Your task to perform on an android device: turn on airplane mode Image 0: 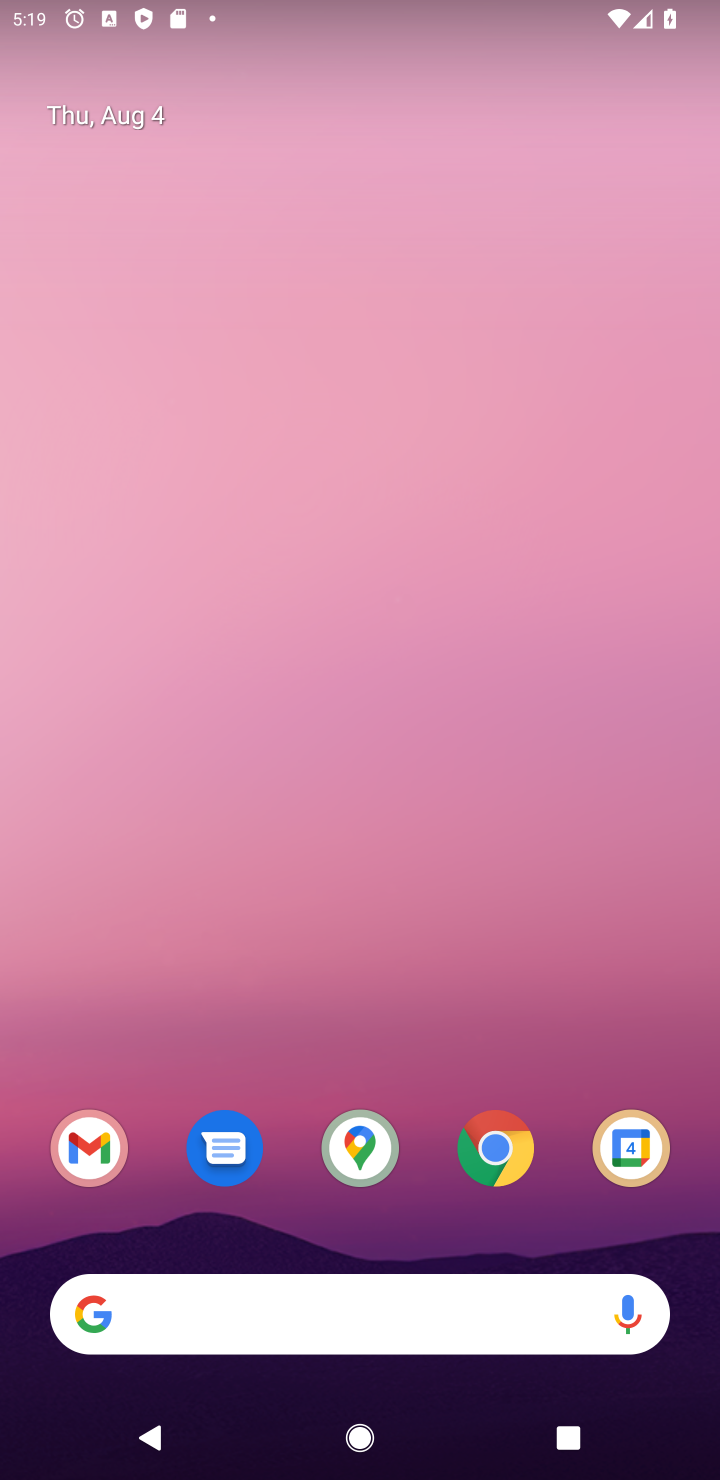
Step 0: drag from (437, 1206) to (415, 171)
Your task to perform on an android device: turn on airplane mode Image 1: 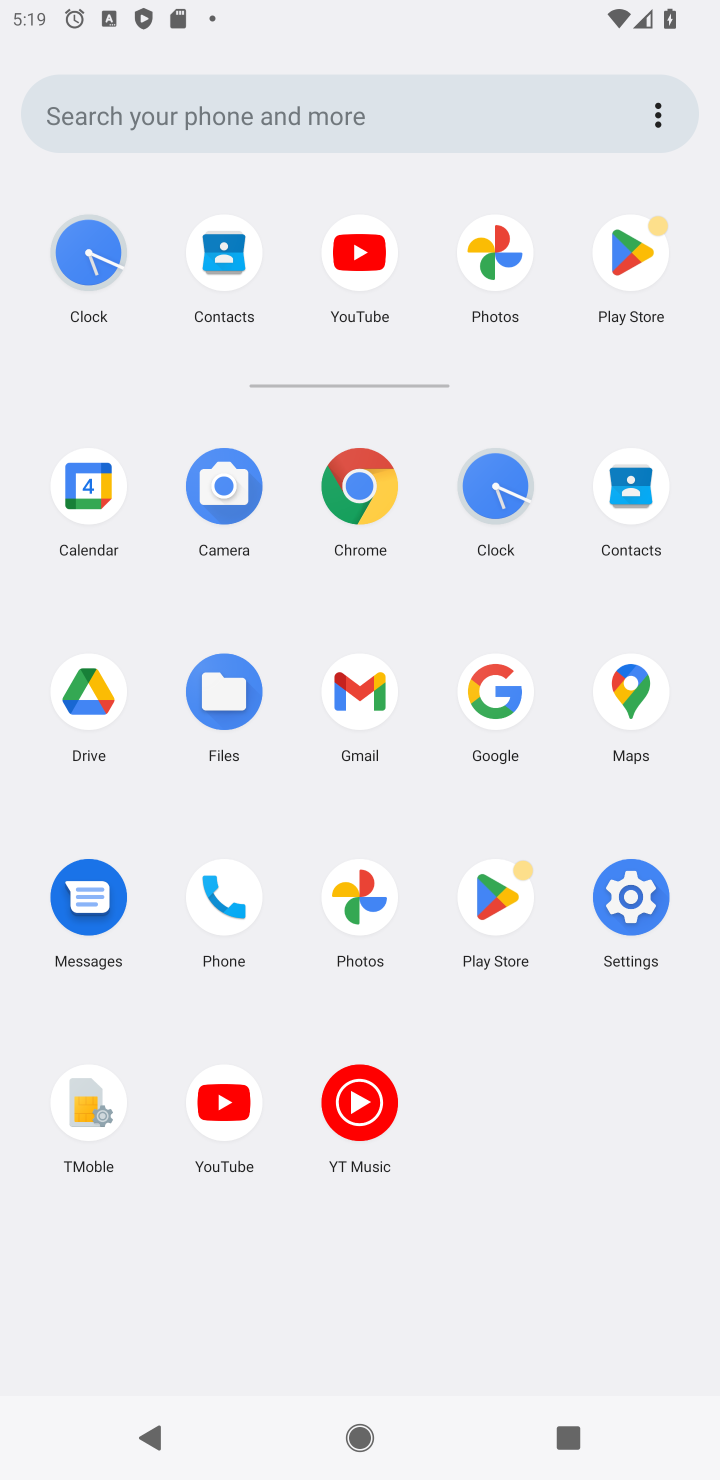
Step 1: click (631, 896)
Your task to perform on an android device: turn on airplane mode Image 2: 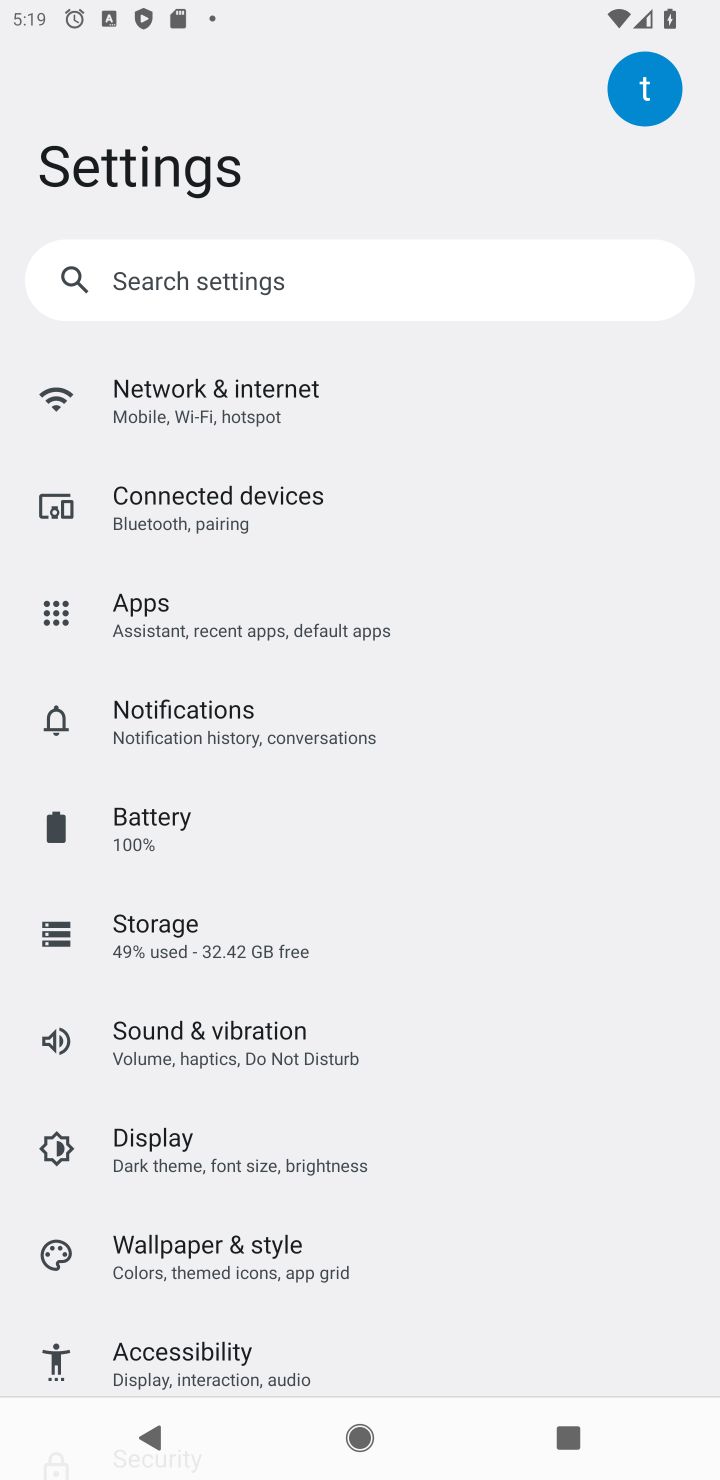
Step 2: click (207, 384)
Your task to perform on an android device: turn on airplane mode Image 3: 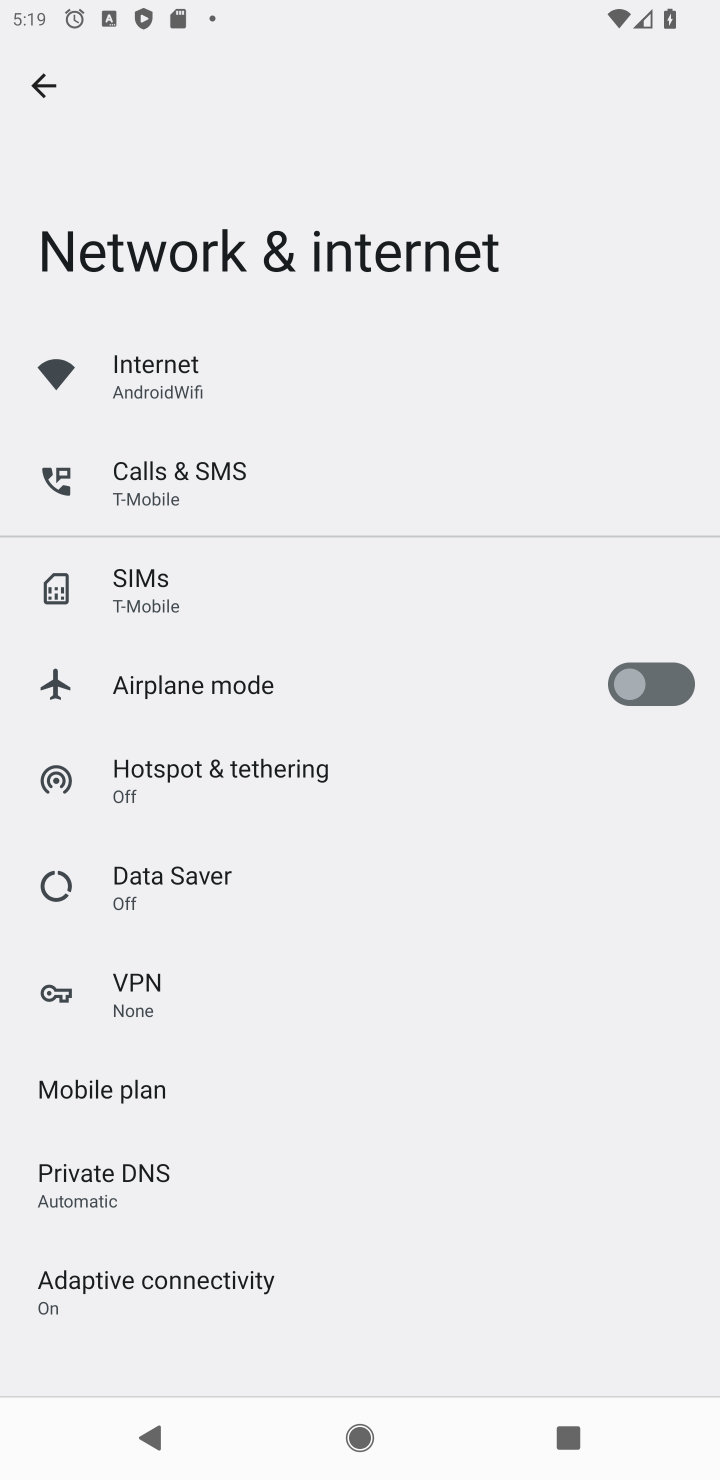
Step 3: click (669, 671)
Your task to perform on an android device: turn on airplane mode Image 4: 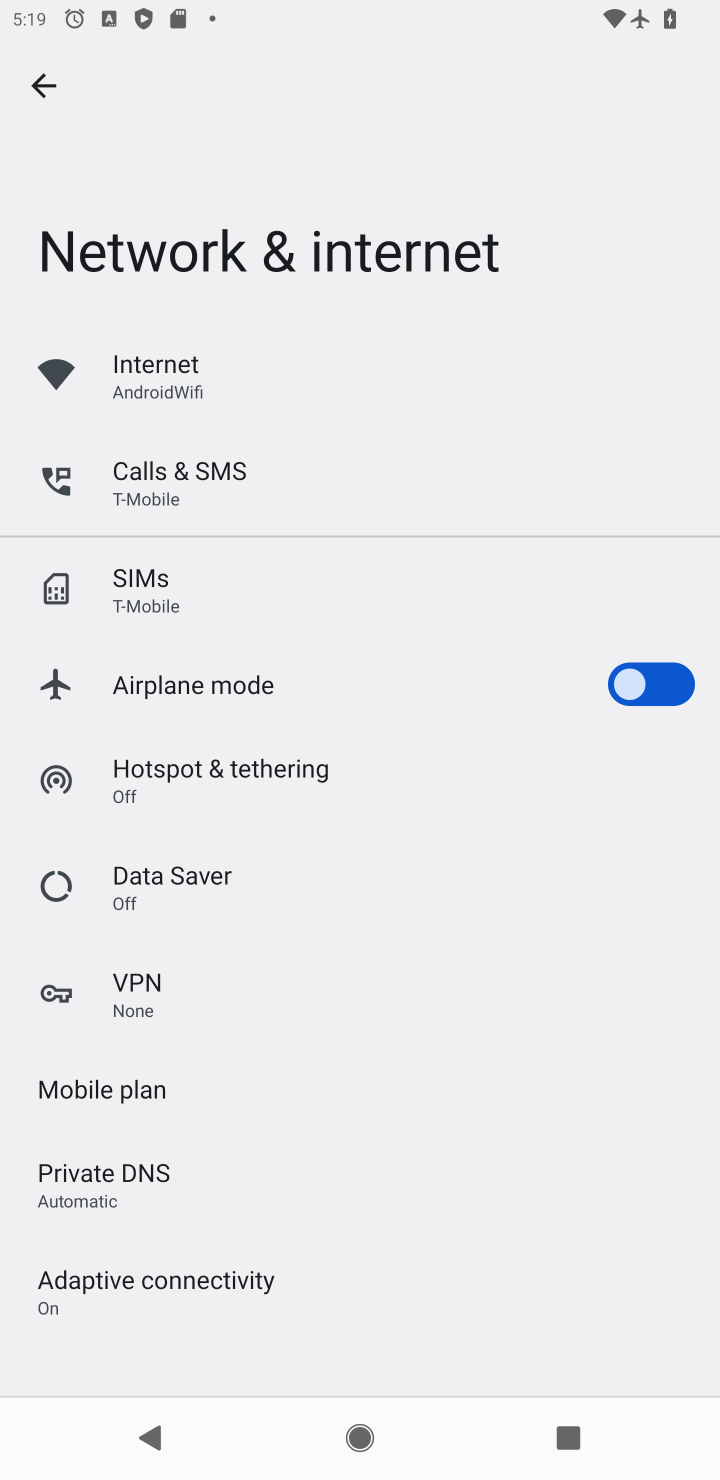
Step 4: task complete